Your task to perform on an android device: turn on the 12-hour format for clock Image 0: 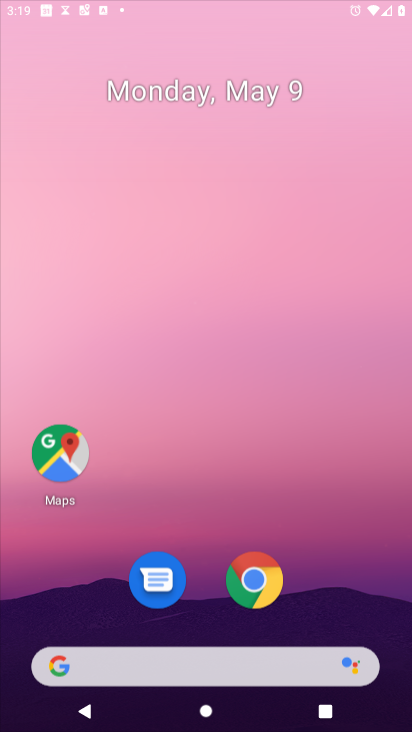
Step 0: click (330, 104)
Your task to perform on an android device: turn on the 12-hour format for clock Image 1: 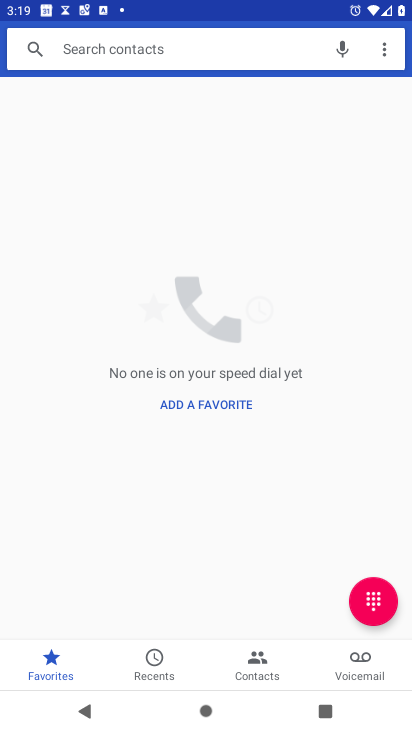
Step 1: press home button
Your task to perform on an android device: turn on the 12-hour format for clock Image 2: 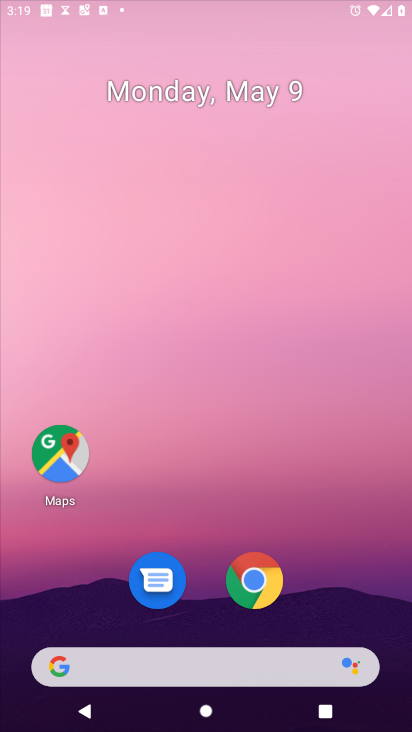
Step 2: drag from (321, 455) to (318, 59)
Your task to perform on an android device: turn on the 12-hour format for clock Image 3: 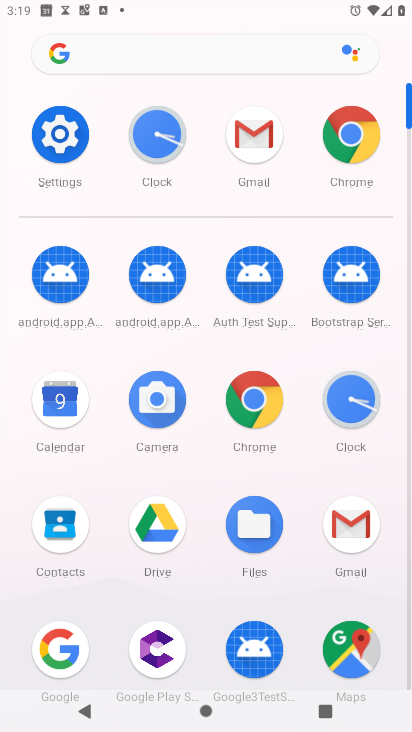
Step 3: click (353, 409)
Your task to perform on an android device: turn on the 12-hour format for clock Image 4: 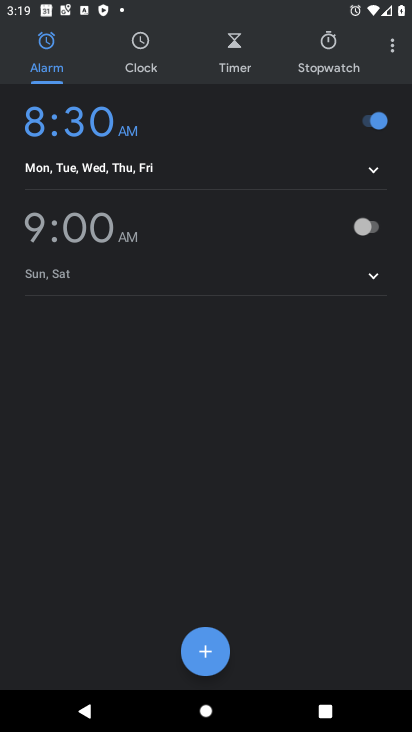
Step 4: click (395, 57)
Your task to perform on an android device: turn on the 12-hour format for clock Image 5: 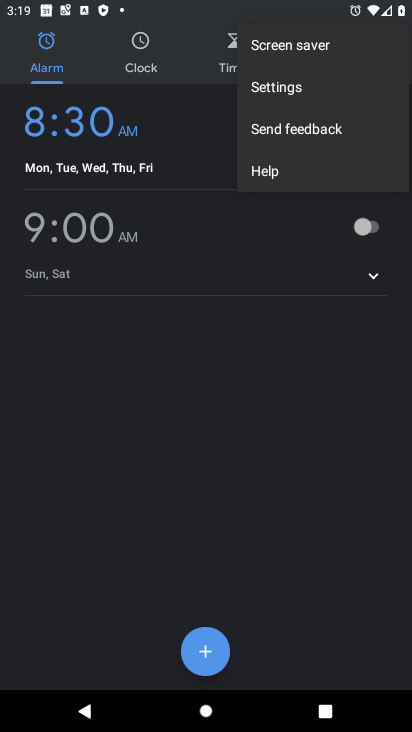
Step 5: click (265, 75)
Your task to perform on an android device: turn on the 12-hour format for clock Image 6: 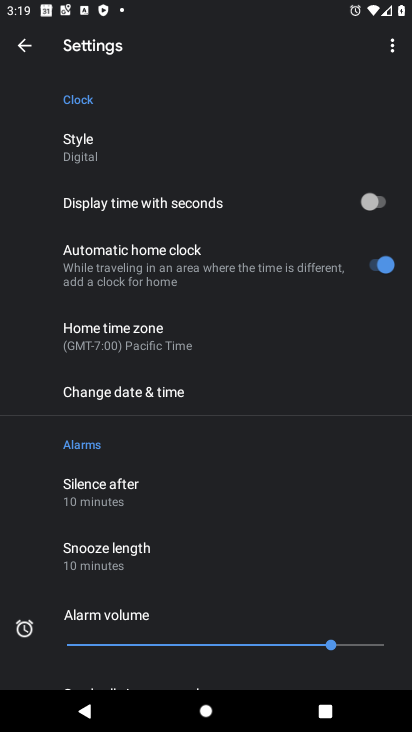
Step 6: click (187, 381)
Your task to perform on an android device: turn on the 12-hour format for clock Image 7: 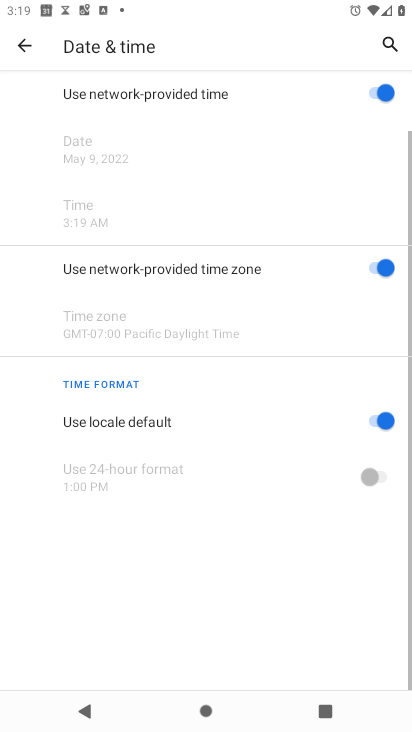
Step 7: task complete